Your task to perform on an android device: change keyboard looks Image 0: 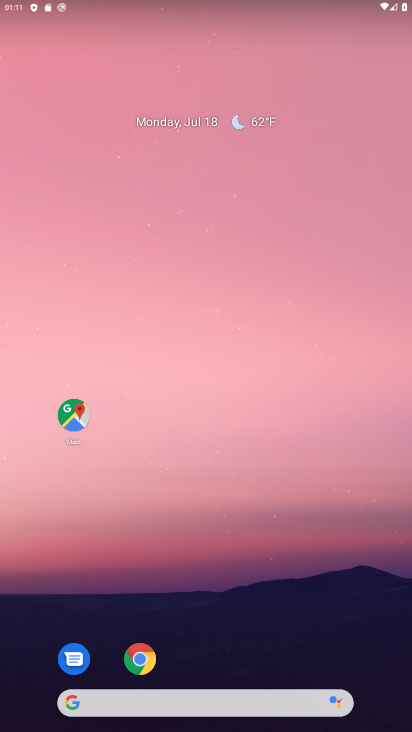
Step 0: drag from (214, 481) to (200, 71)
Your task to perform on an android device: change keyboard looks Image 1: 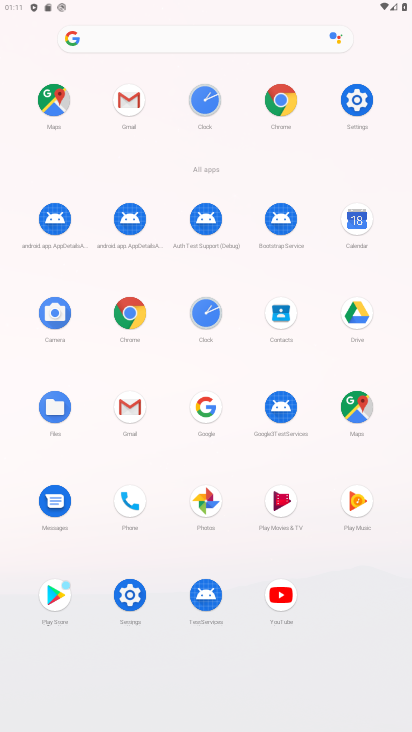
Step 1: click (356, 109)
Your task to perform on an android device: change keyboard looks Image 2: 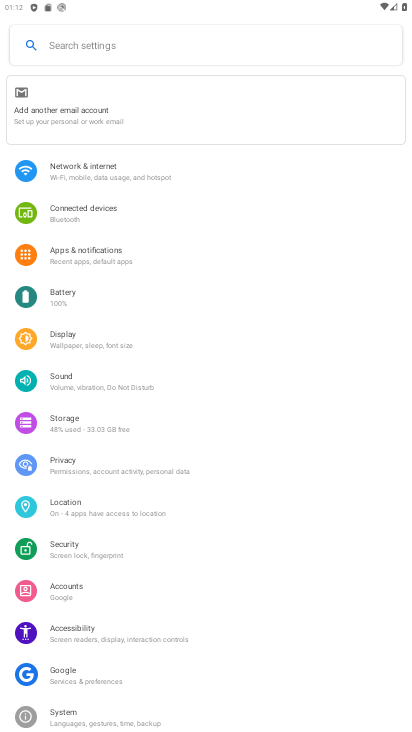
Step 2: click (94, 718)
Your task to perform on an android device: change keyboard looks Image 3: 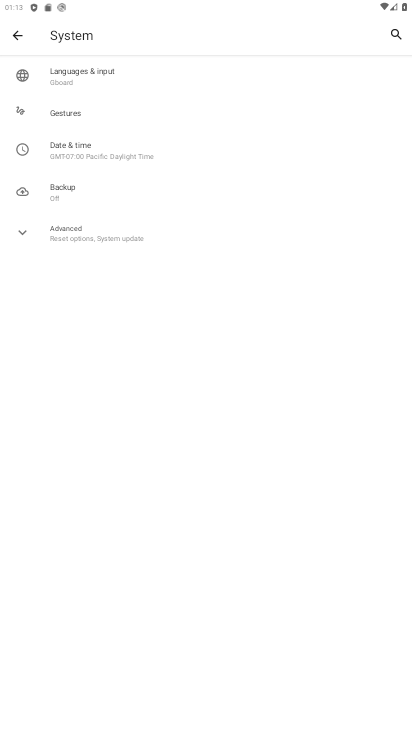
Step 3: click (81, 76)
Your task to perform on an android device: change keyboard looks Image 4: 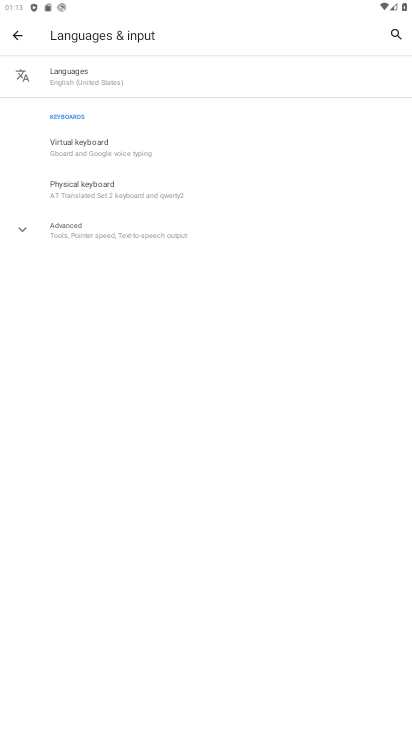
Step 4: click (102, 150)
Your task to perform on an android device: change keyboard looks Image 5: 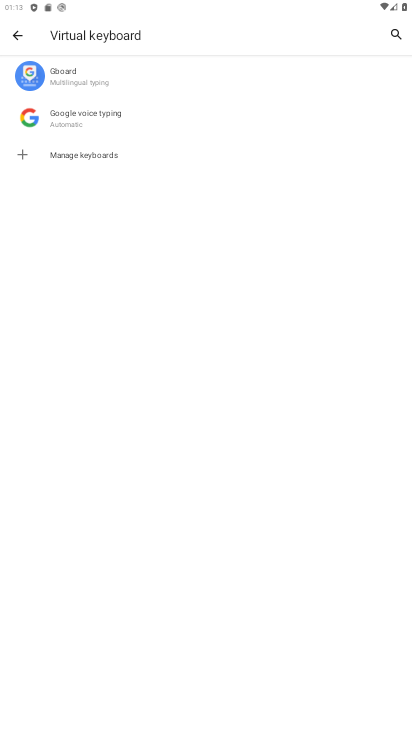
Step 5: click (72, 73)
Your task to perform on an android device: change keyboard looks Image 6: 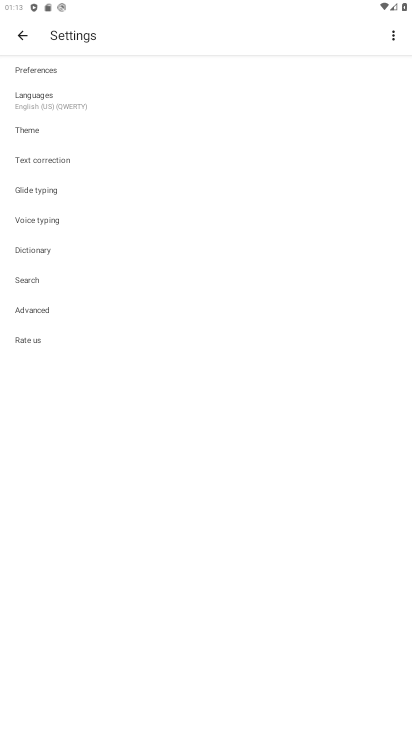
Step 6: click (37, 139)
Your task to perform on an android device: change keyboard looks Image 7: 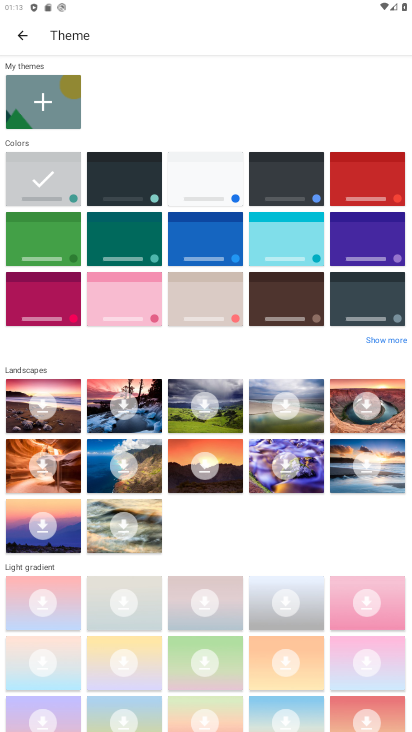
Step 7: click (202, 174)
Your task to perform on an android device: change keyboard looks Image 8: 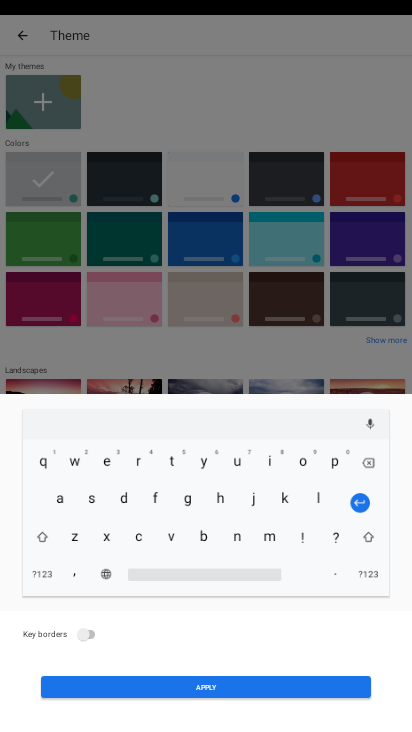
Step 8: click (303, 689)
Your task to perform on an android device: change keyboard looks Image 9: 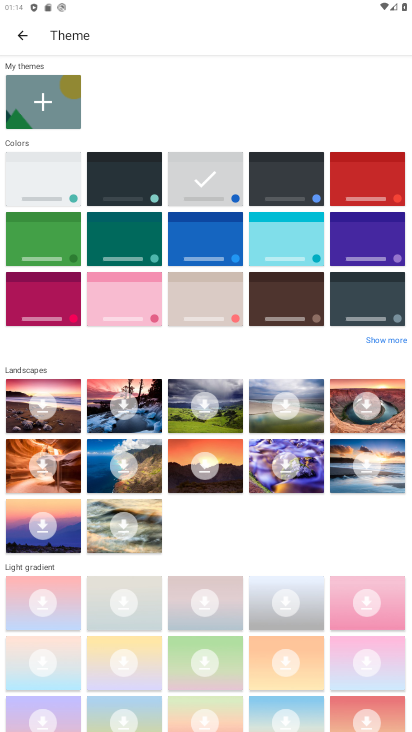
Step 9: task complete